Your task to perform on an android device: check data usage Image 0: 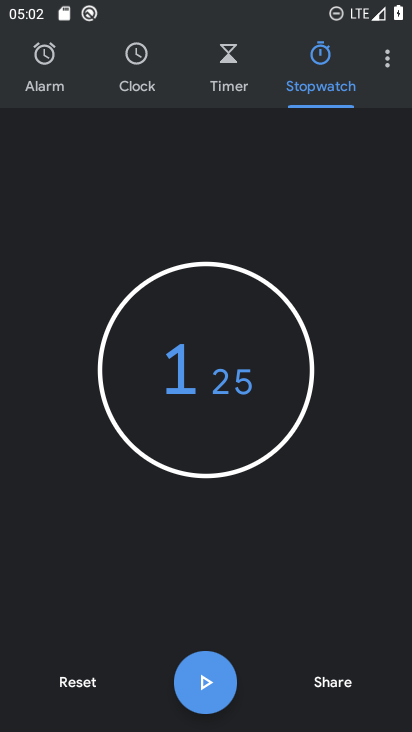
Step 0: press back button
Your task to perform on an android device: check data usage Image 1: 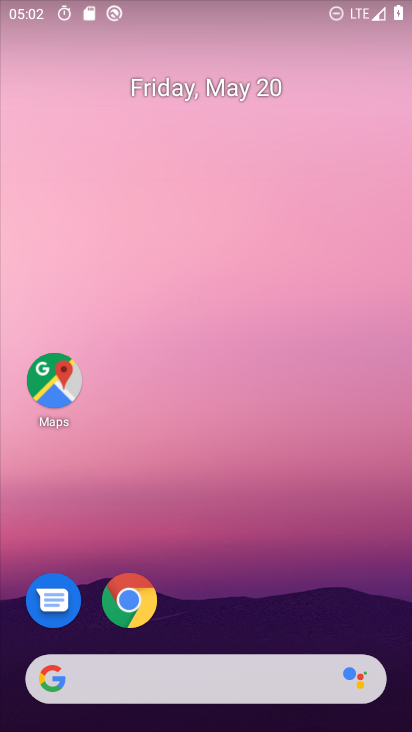
Step 1: drag from (232, 606) to (274, 164)
Your task to perform on an android device: check data usage Image 2: 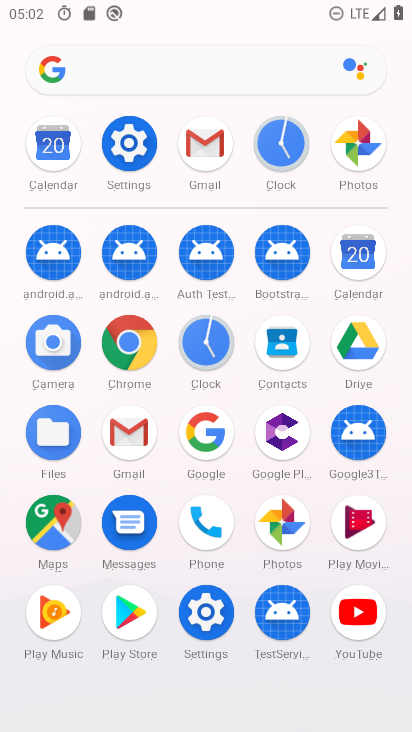
Step 2: click (139, 153)
Your task to perform on an android device: check data usage Image 3: 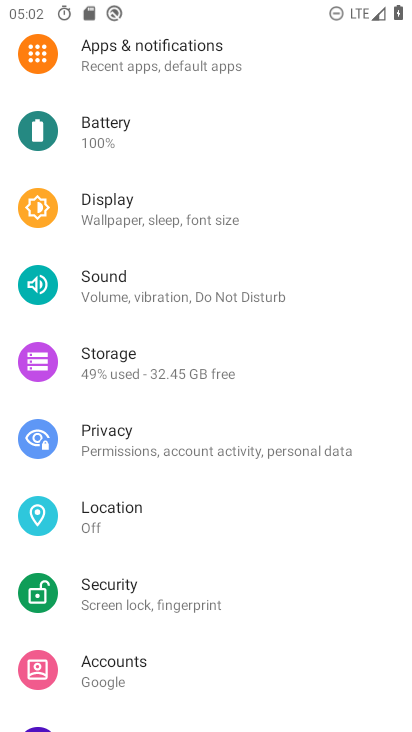
Step 3: drag from (186, 124) to (211, 655)
Your task to perform on an android device: check data usage Image 4: 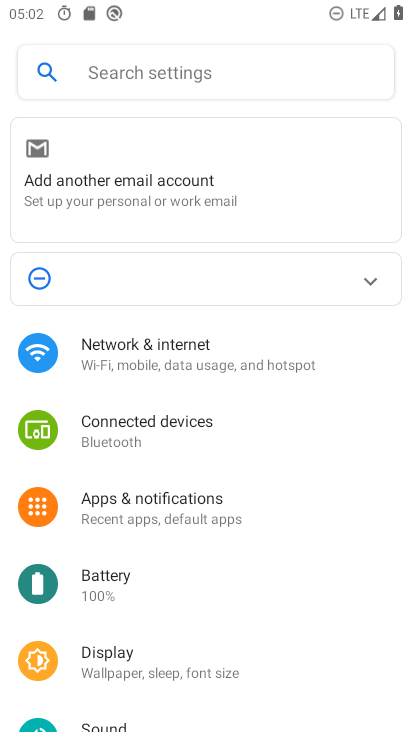
Step 4: click (170, 365)
Your task to perform on an android device: check data usage Image 5: 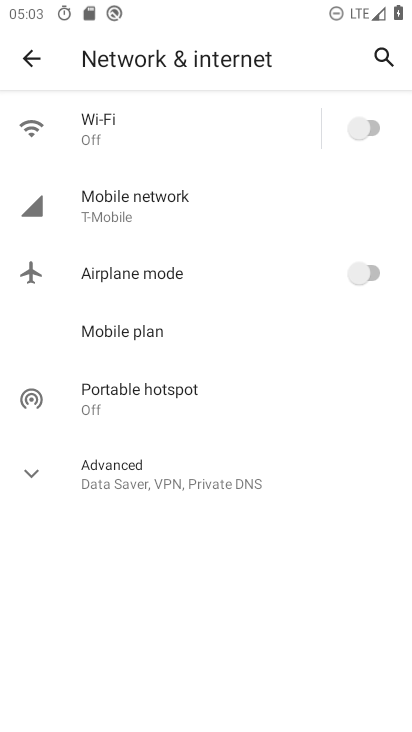
Step 5: click (143, 205)
Your task to perform on an android device: check data usage Image 6: 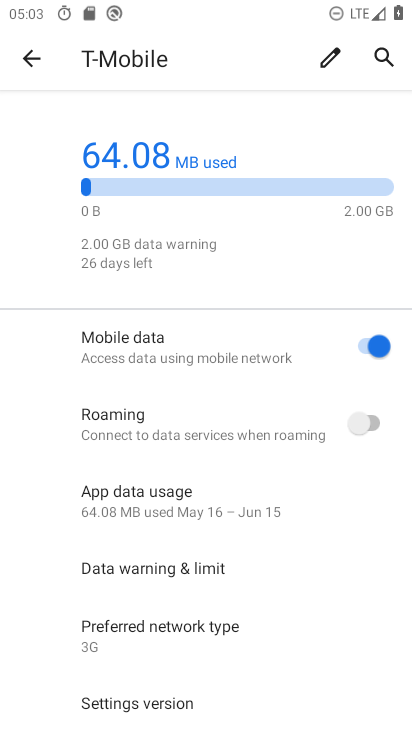
Step 6: click (209, 507)
Your task to perform on an android device: check data usage Image 7: 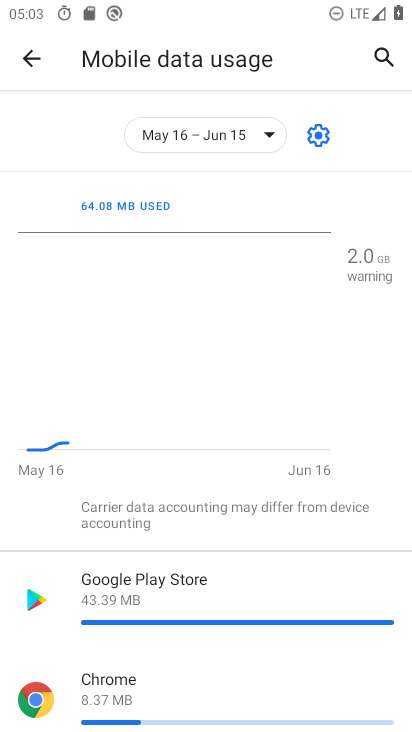
Step 7: task complete